Your task to perform on an android device: toggle translation in the chrome app Image 0: 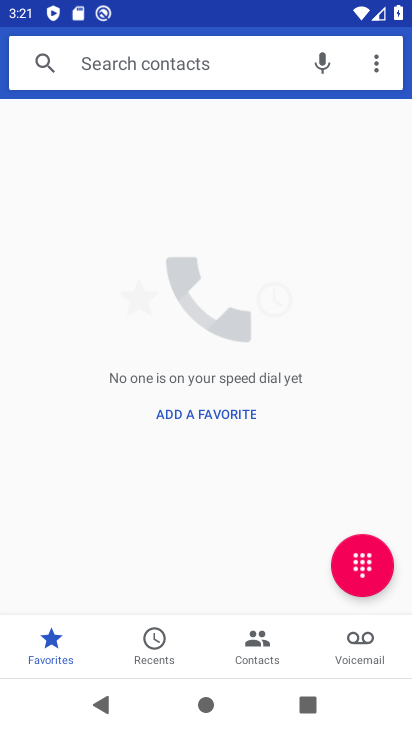
Step 0: press back button
Your task to perform on an android device: toggle translation in the chrome app Image 1: 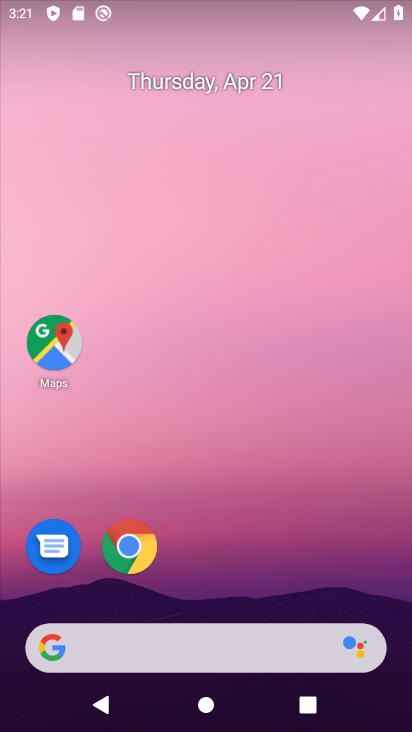
Step 1: click (125, 563)
Your task to perform on an android device: toggle translation in the chrome app Image 2: 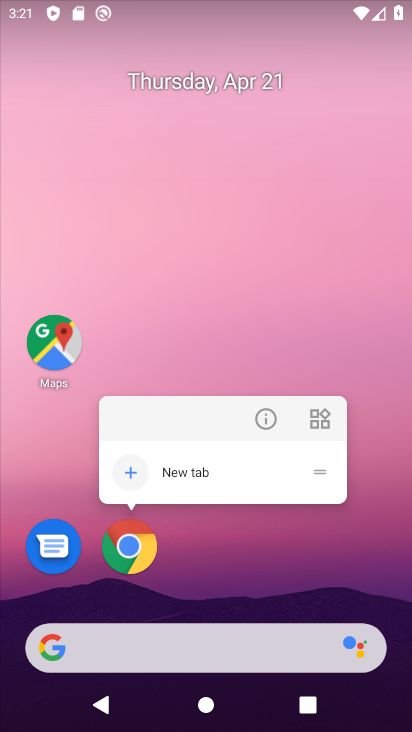
Step 2: click (126, 561)
Your task to perform on an android device: toggle translation in the chrome app Image 3: 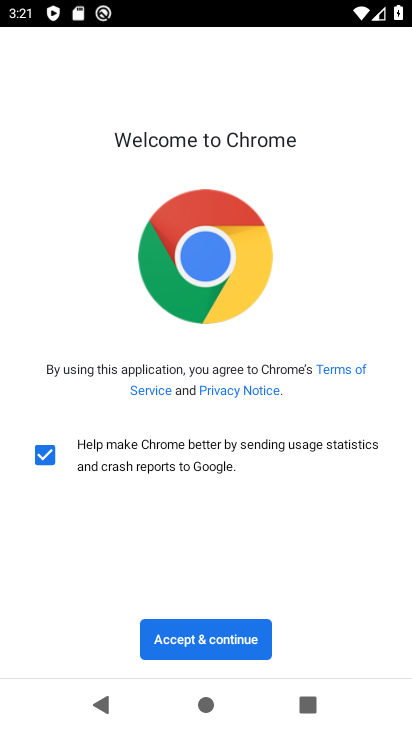
Step 3: click (222, 632)
Your task to perform on an android device: toggle translation in the chrome app Image 4: 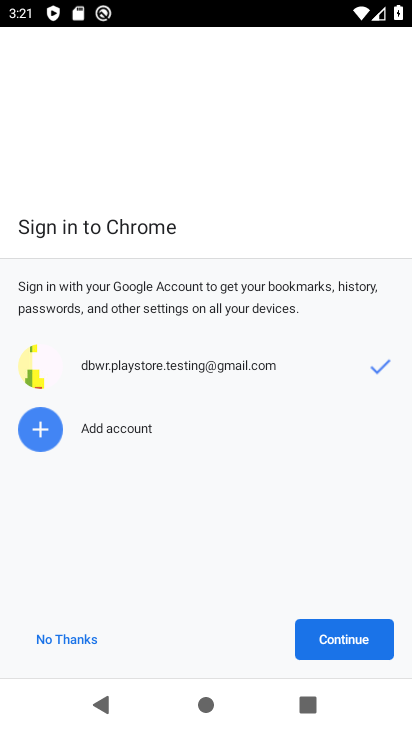
Step 4: click (371, 639)
Your task to perform on an android device: toggle translation in the chrome app Image 5: 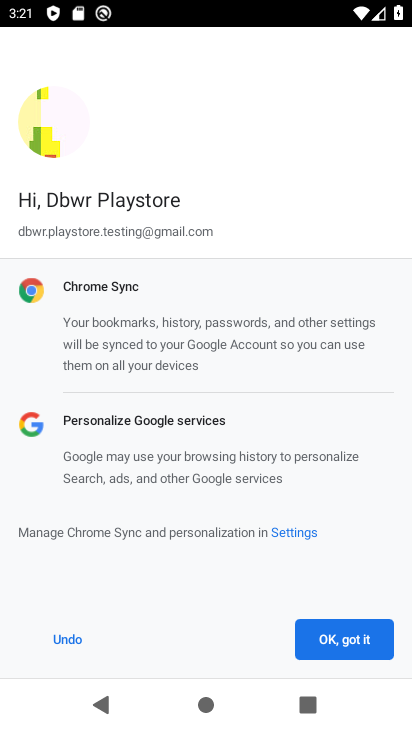
Step 5: click (347, 646)
Your task to perform on an android device: toggle translation in the chrome app Image 6: 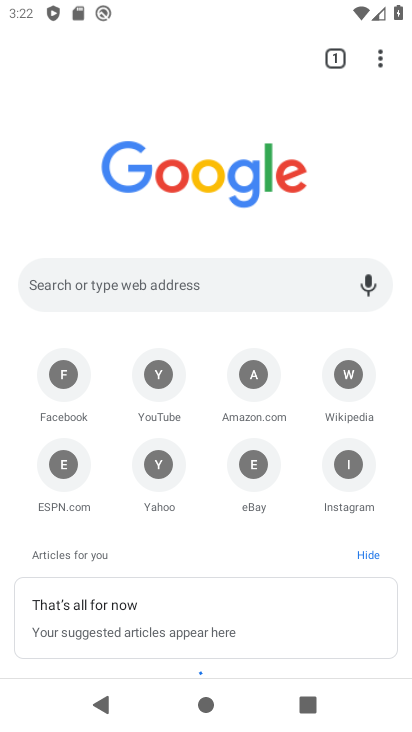
Step 6: drag from (382, 61) to (287, 492)
Your task to perform on an android device: toggle translation in the chrome app Image 7: 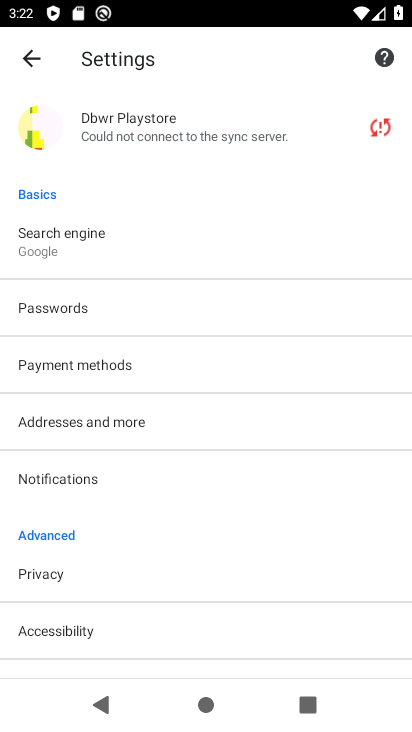
Step 7: drag from (119, 665) to (212, 374)
Your task to perform on an android device: toggle translation in the chrome app Image 8: 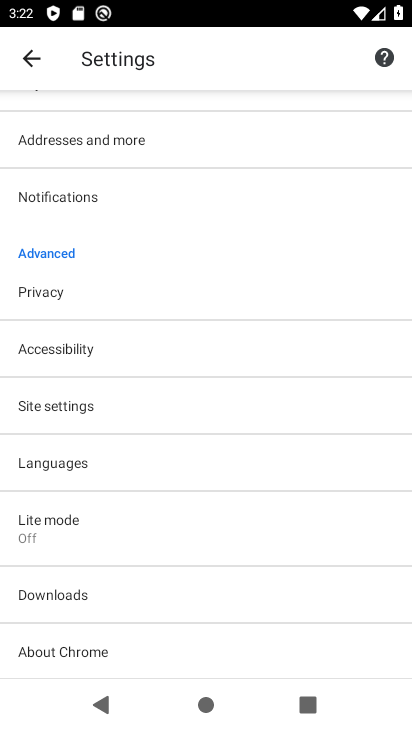
Step 8: click (112, 476)
Your task to perform on an android device: toggle translation in the chrome app Image 9: 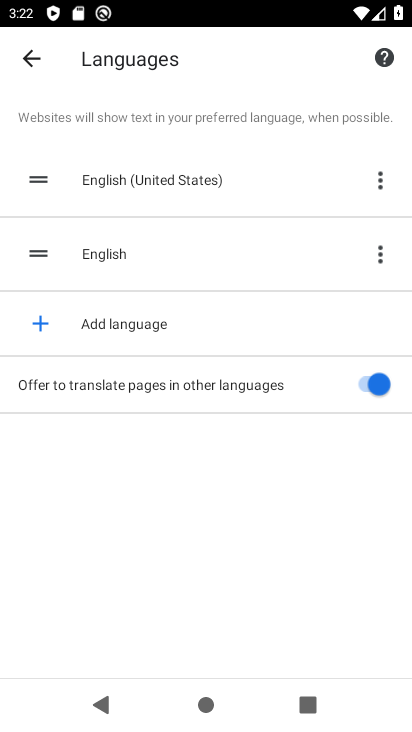
Step 9: click (367, 384)
Your task to perform on an android device: toggle translation in the chrome app Image 10: 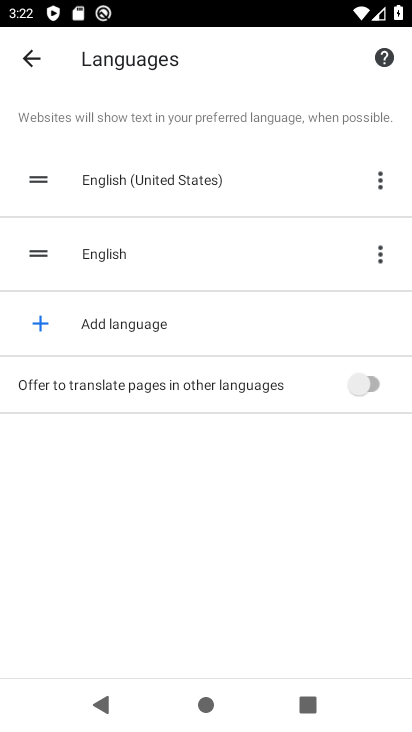
Step 10: task complete